Your task to perform on an android device: turn pop-ups off in chrome Image 0: 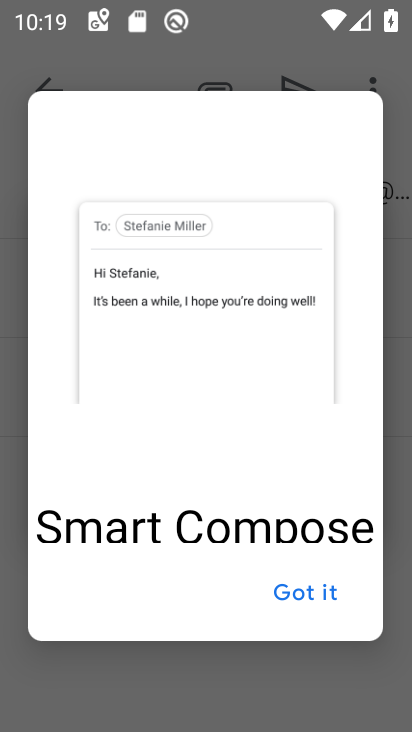
Step 0: press home button
Your task to perform on an android device: turn pop-ups off in chrome Image 1: 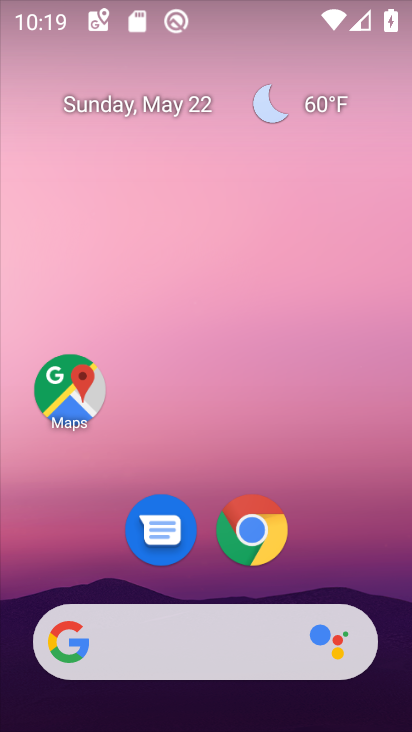
Step 1: click (256, 518)
Your task to perform on an android device: turn pop-ups off in chrome Image 2: 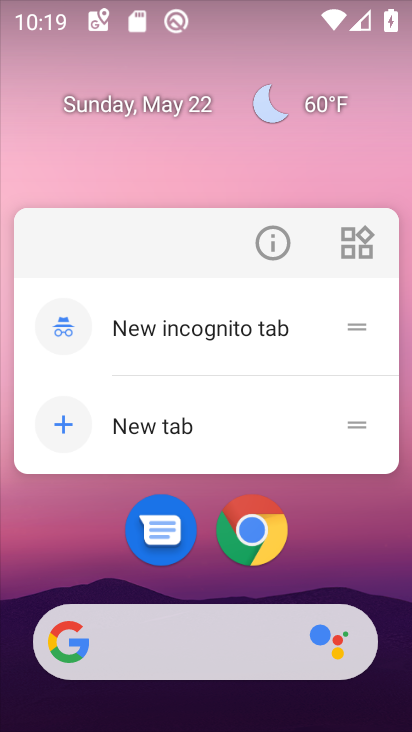
Step 2: click (256, 518)
Your task to perform on an android device: turn pop-ups off in chrome Image 3: 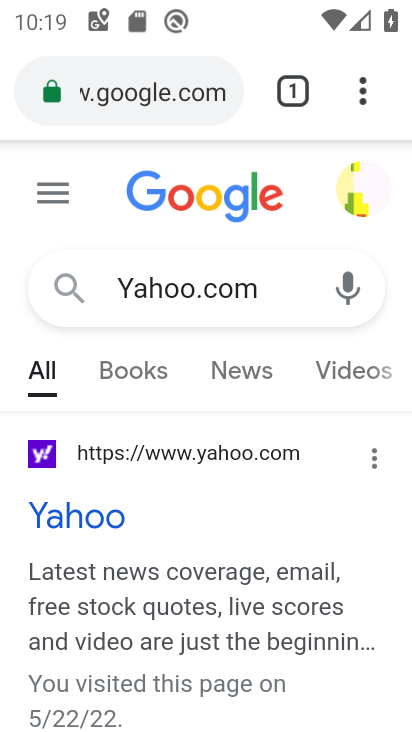
Step 3: click (357, 89)
Your task to perform on an android device: turn pop-ups off in chrome Image 4: 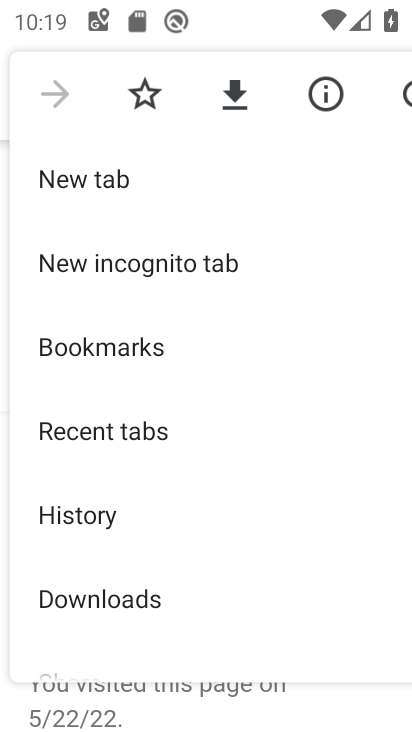
Step 4: drag from (340, 592) to (343, 300)
Your task to perform on an android device: turn pop-ups off in chrome Image 5: 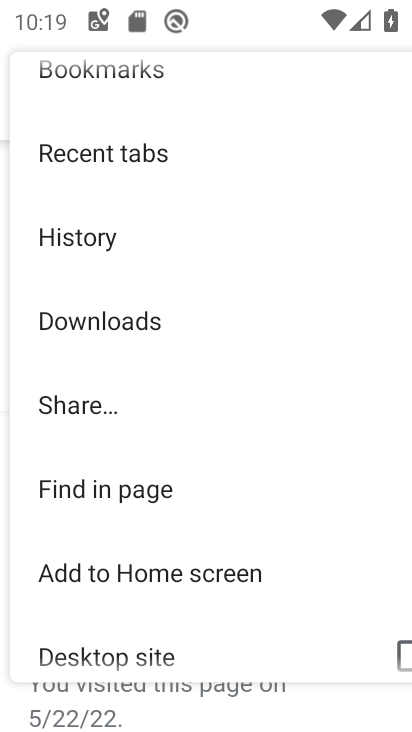
Step 5: drag from (324, 442) to (315, 247)
Your task to perform on an android device: turn pop-ups off in chrome Image 6: 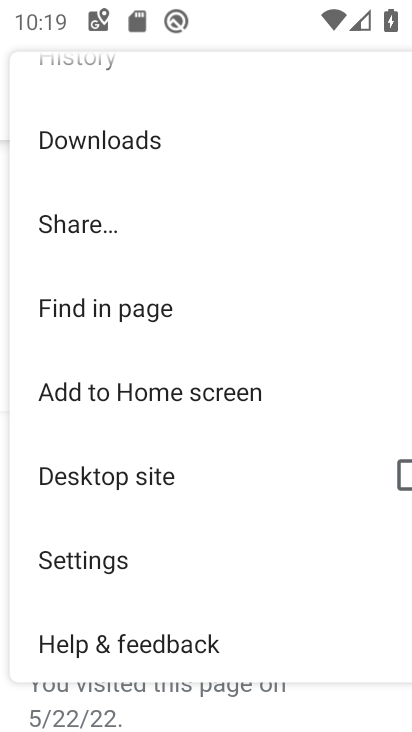
Step 6: click (120, 558)
Your task to perform on an android device: turn pop-ups off in chrome Image 7: 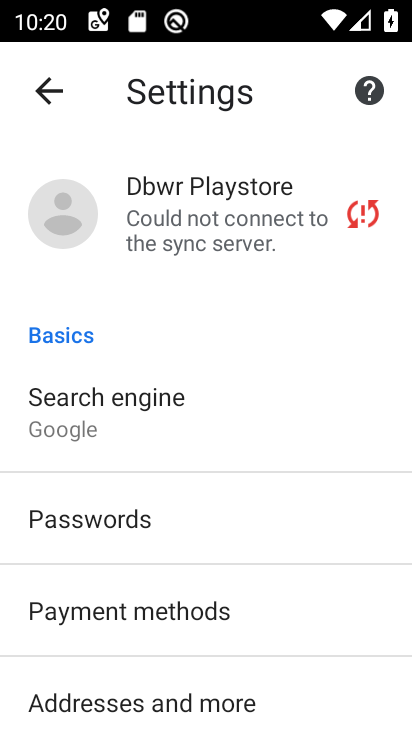
Step 7: drag from (330, 687) to (311, 274)
Your task to perform on an android device: turn pop-ups off in chrome Image 8: 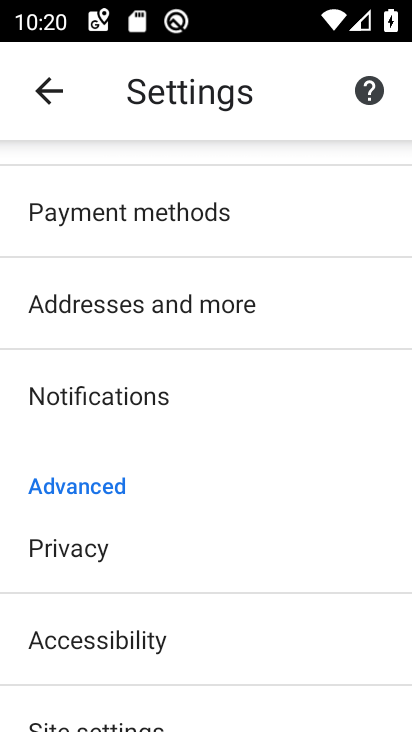
Step 8: drag from (281, 592) to (276, 318)
Your task to perform on an android device: turn pop-ups off in chrome Image 9: 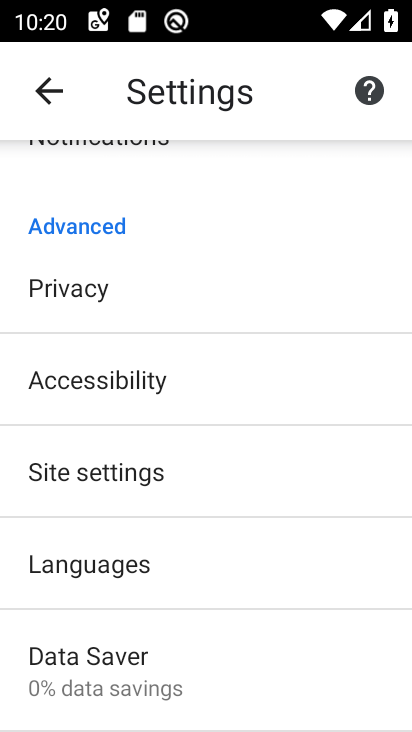
Step 9: drag from (272, 638) to (266, 360)
Your task to perform on an android device: turn pop-ups off in chrome Image 10: 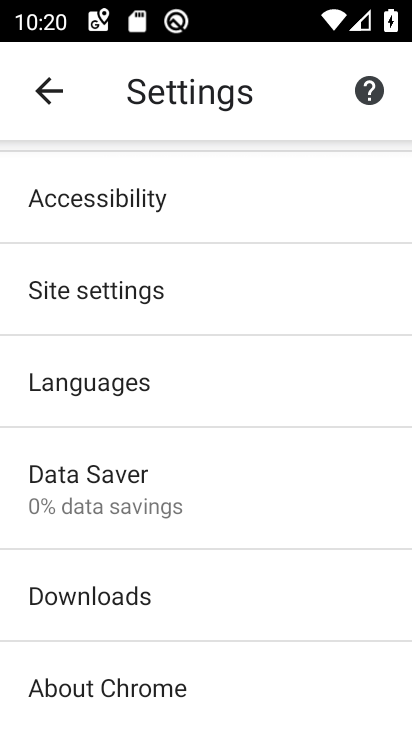
Step 10: drag from (294, 692) to (308, 361)
Your task to perform on an android device: turn pop-ups off in chrome Image 11: 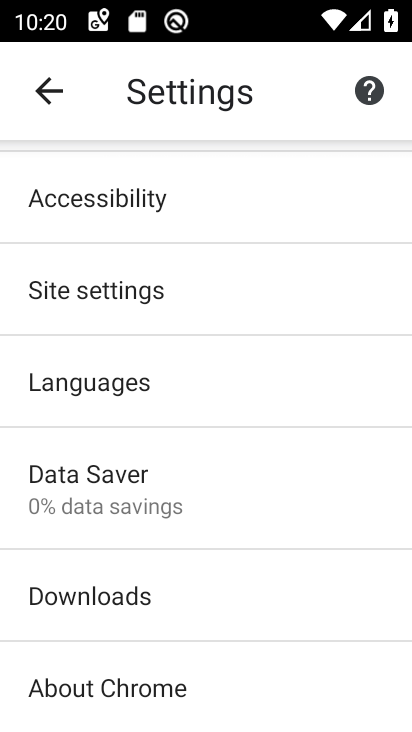
Step 11: click (90, 299)
Your task to perform on an android device: turn pop-ups off in chrome Image 12: 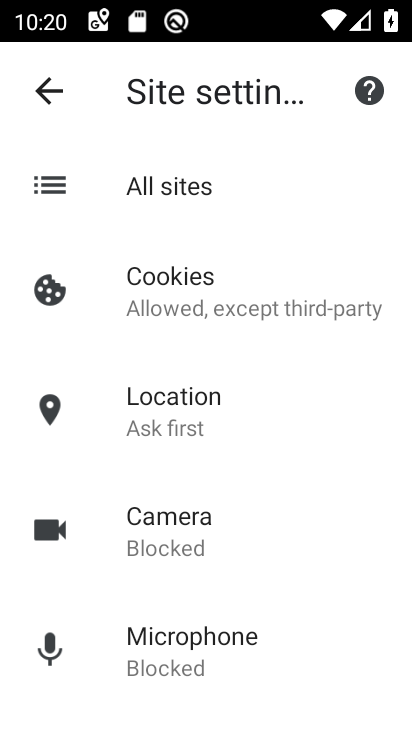
Step 12: drag from (340, 697) to (297, 255)
Your task to perform on an android device: turn pop-ups off in chrome Image 13: 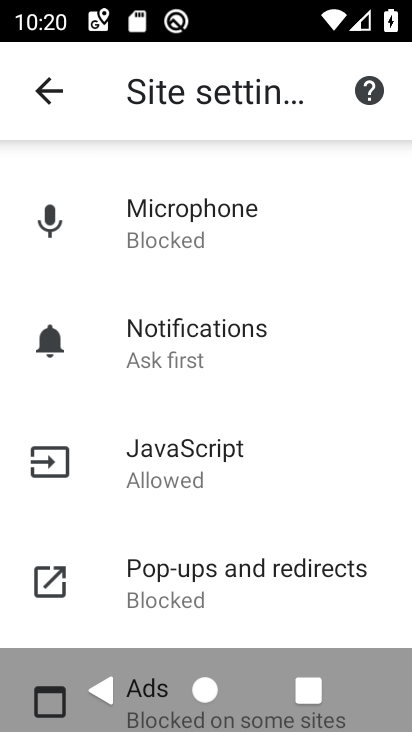
Step 13: click (247, 574)
Your task to perform on an android device: turn pop-ups off in chrome Image 14: 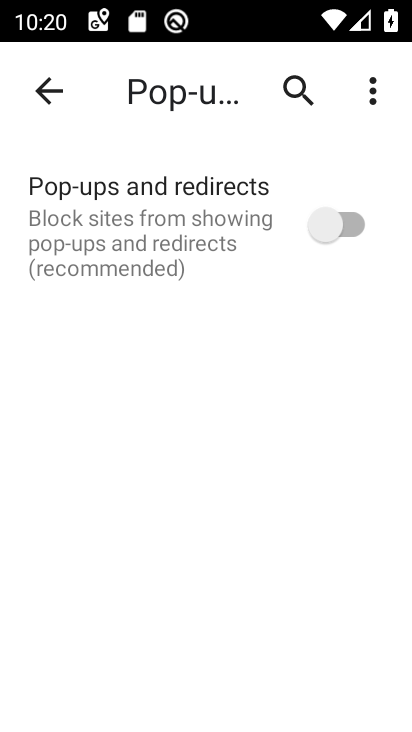
Step 14: task complete